Your task to perform on an android device: turn on bluetooth scan Image 0: 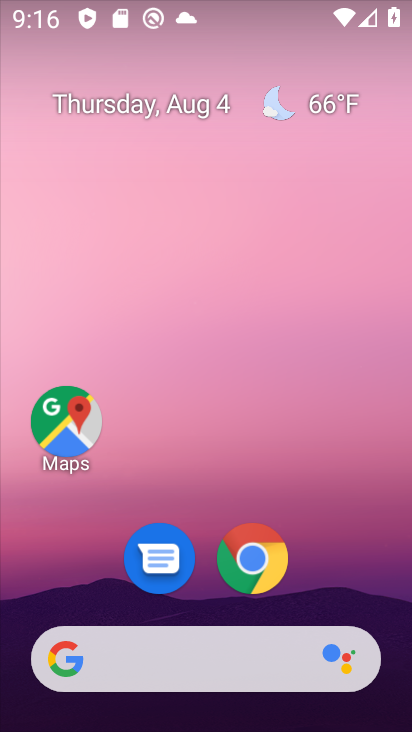
Step 0: drag from (335, 541) to (338, 78)
Your task to perform on an android device: turn on bluetooth scan Image 1: 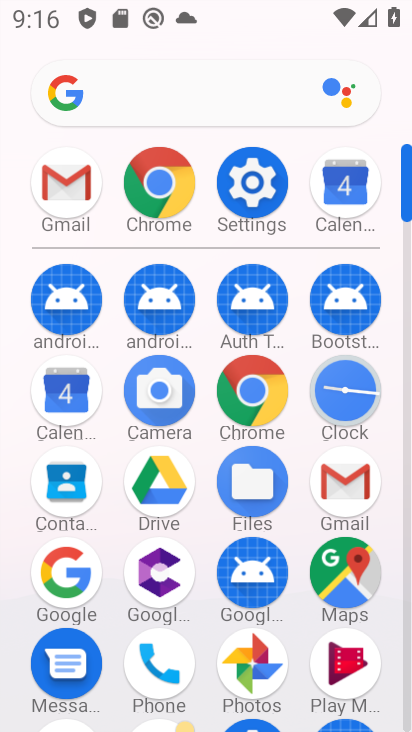
Step 1: drag from (299, 533) to (324, 281)
Your task to perform on an android device: turn on bluetooth scan Image 2: 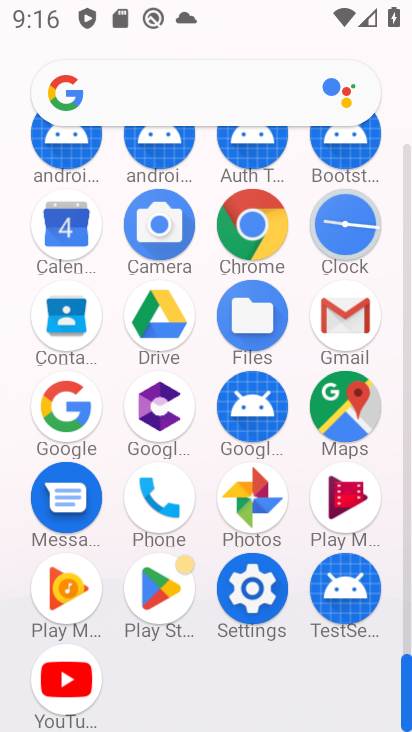
Step 2: click (248, 594)
Your task to perform on an android device: turn on bluetooth scan Image 3: 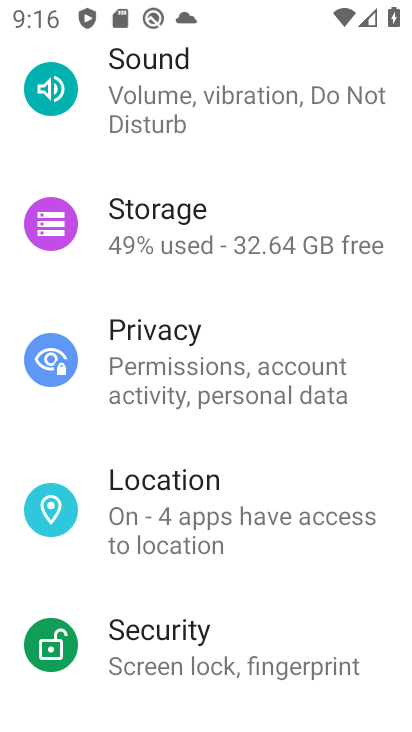
Step 3: click (147, 516)
Your task to perform on an android device: turn on bluetooth scan Image 4: 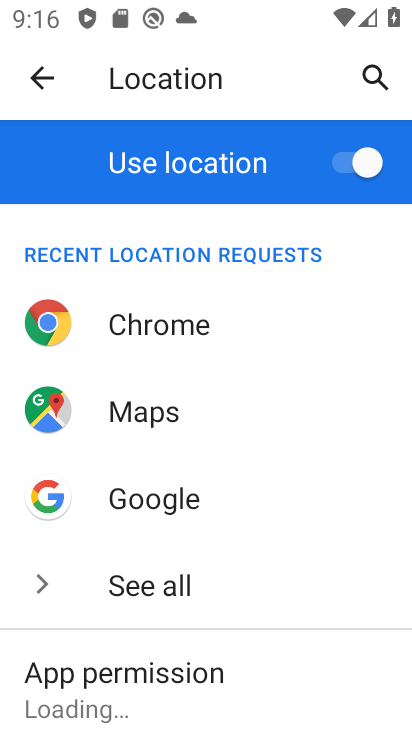
Step 4: drag from (236, 646) to (321, 218)
Your task to perform on an android device: turn on bluetooth scan Image 5: 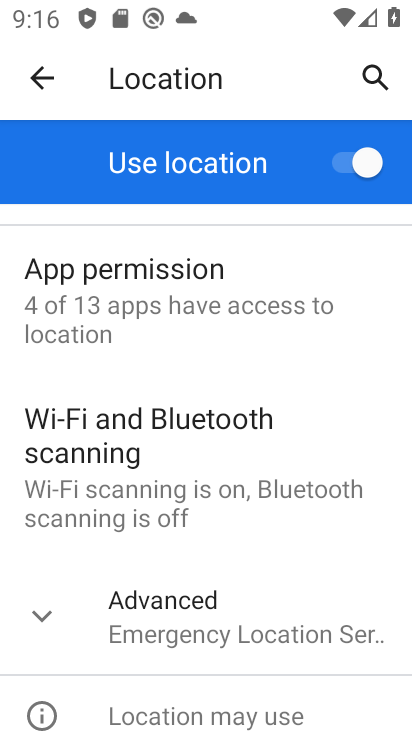
Step 5: click (137, 460)
Your task to perform on an android device: turn on bluetooth scan Image 6: 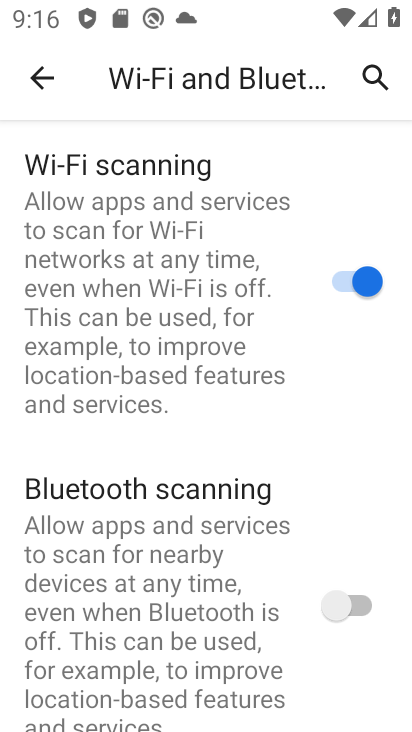
Step 6: click (352, 599)
Your task to perform on an android device: turn on bluetooth scan Image 7: 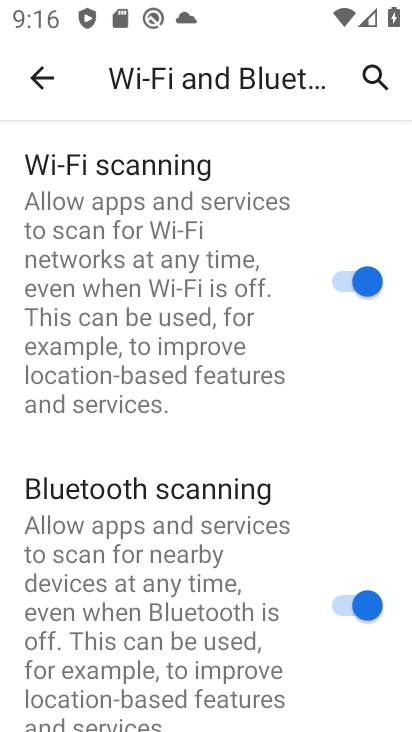
Step 7: task complete